Your task to perform on an android device: turn on improve location accuracy Image 0: 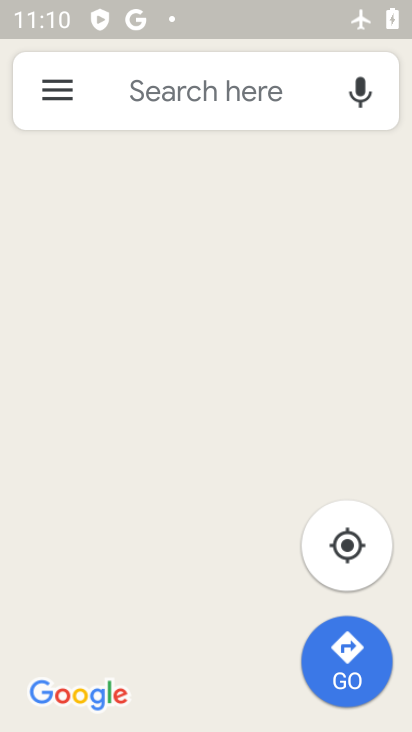
Step 0: press home button
Your task to perform on an android device: turn on improve location accuracy Image 1: 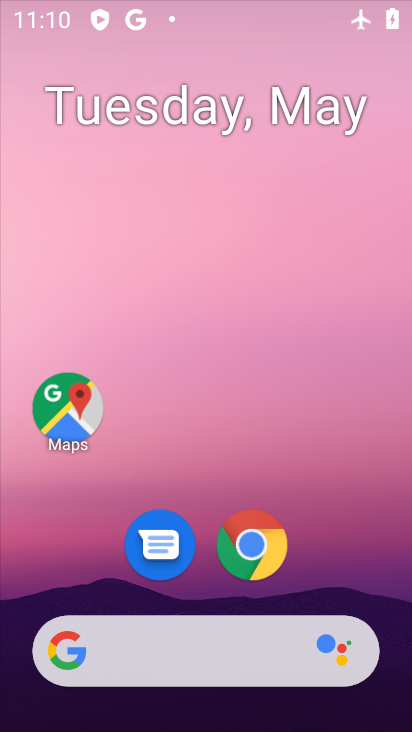
Step 1: drag from (363, 590) to (364, 258)
Your task to perform on an android device: turn on improve location accuracy Image 2: 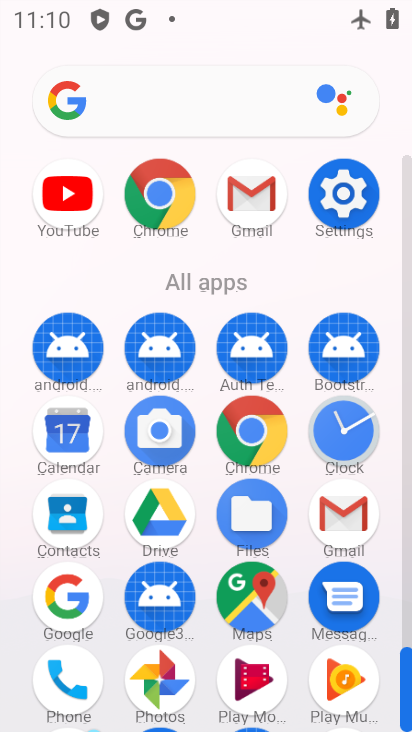
Step 2: click (345, 216)
Your task to perform on an android device: turn on improve location accuracy Image 3: 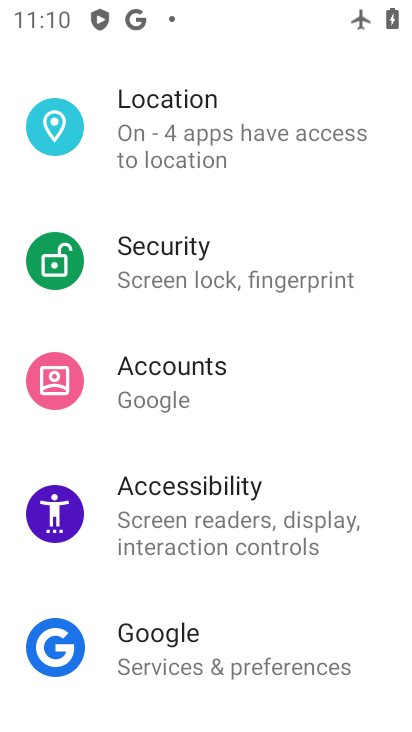
Step 3: click (322, 121)
Your task to perform on an android device: turn on improve location accuracy Image 4: 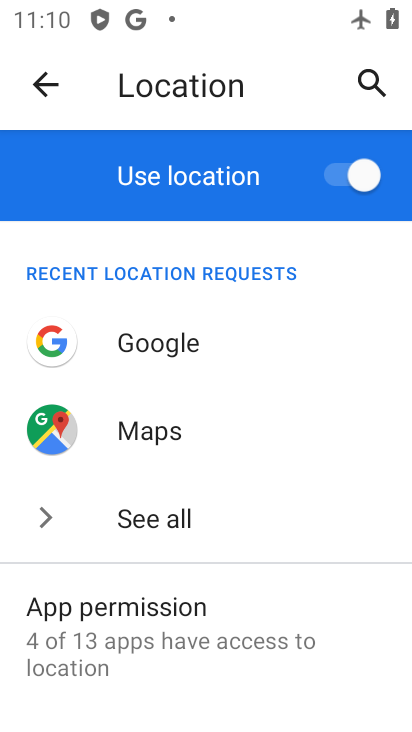
Step 4: drag from (317, 696) to (287, 375)
Your task to perform on an android device: turn on improve location accuracy Image 5: 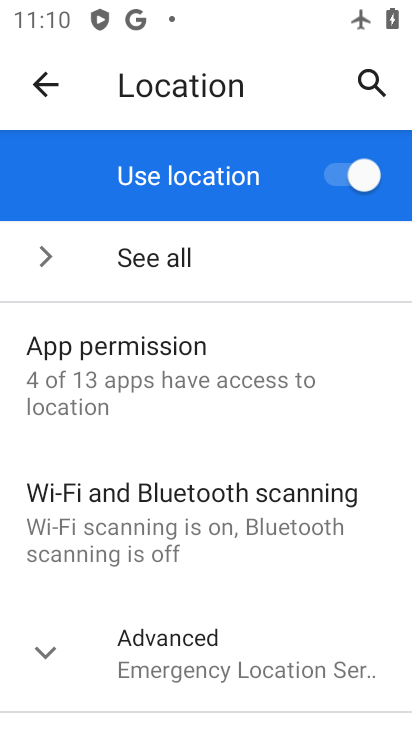
Step 5: click (297, 662)
Your task to perform on an android device: turn on improve location accuracy Image 6: 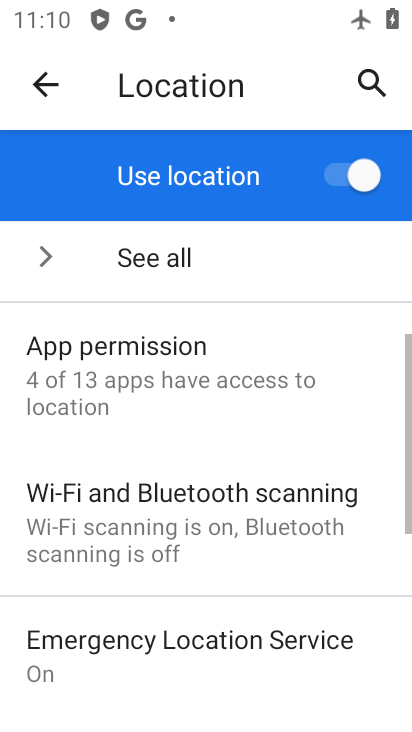
Step 6: drag from (300, 687) to (286, 328)
Your task to perform on an android device: turn on improve location accuracy Image 7: 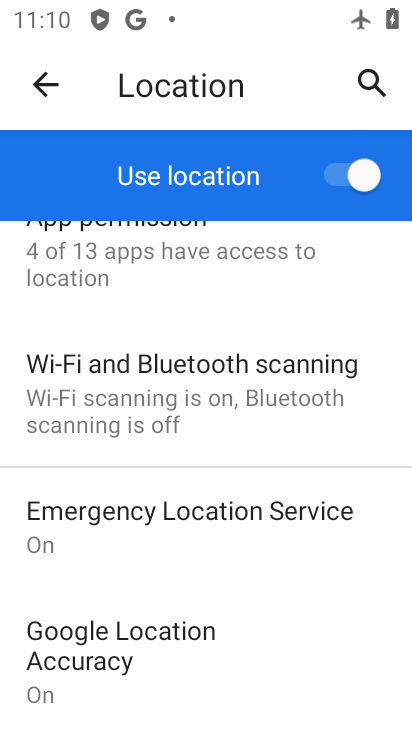
Step 7: drag from (255, 648) to (262, 342)
Your task to perform on an android device: turn on improve location accuracy Image 8: 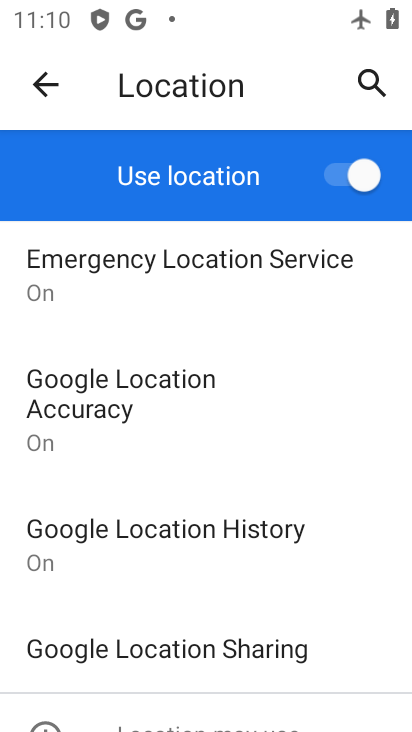
Step 8: click (149, 418)
Your task to perform on an android device: turn on improve location accuracy Image 9: 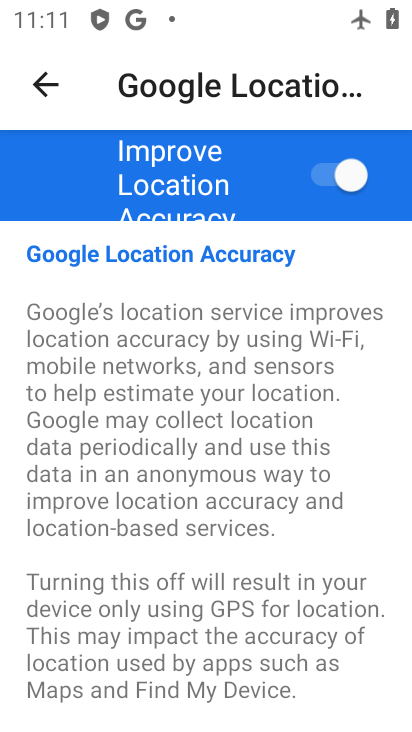
Step 9: task complete